Your task to perform on an android device: open a new tab in the chrome app Image 0: 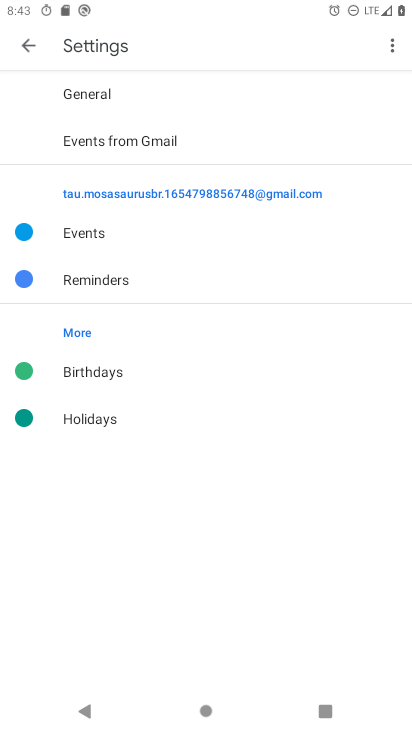
Step 0: press home button
Your task to perform on an android device: open a new tab in the chrome app Image 1: 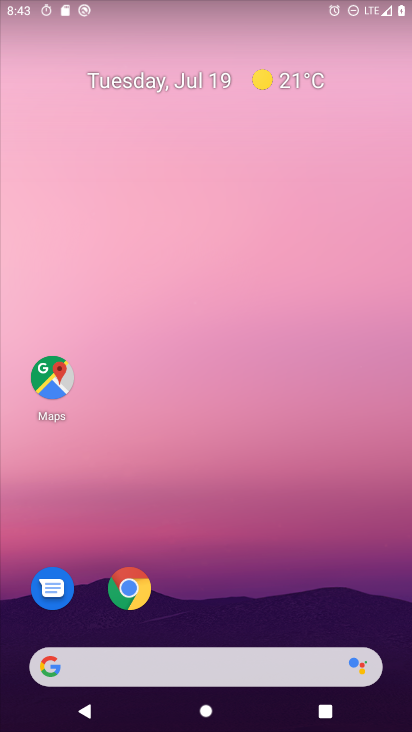
Step 1: drag from (260, 585) to (253, 196)
Your task to perform on an android device: open a new tab in the chrome app Image 2: 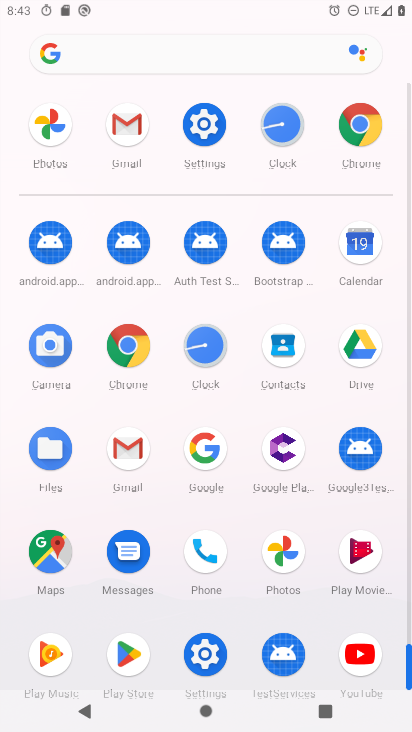
Step 2: click (130, 347)
Your task to perform on an android device: open a new tab in the chrome app Image 3: 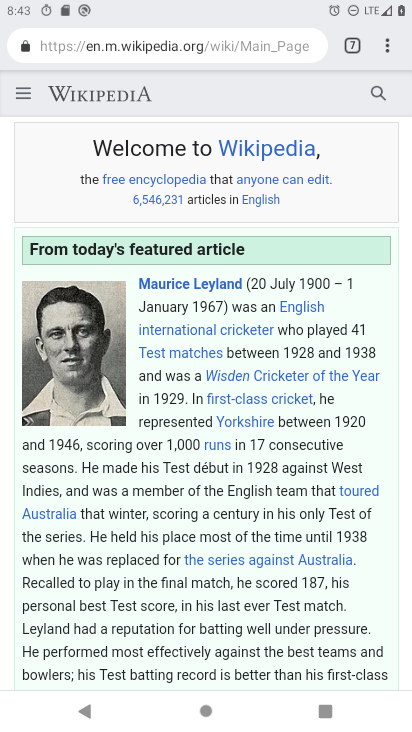
Step 3: click (350, 48)
Your task to perform on an android device: open a new tab in the chrome app Image 4: 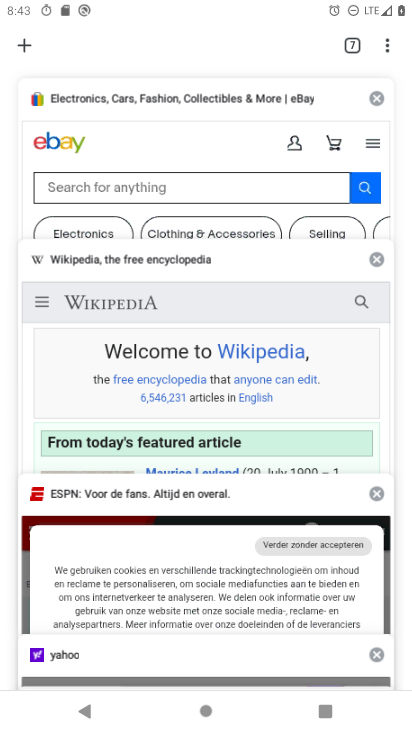
Step 4: click (21, 50)
Your task to perform on an android device: open a new tab in the chrome app Image 5: 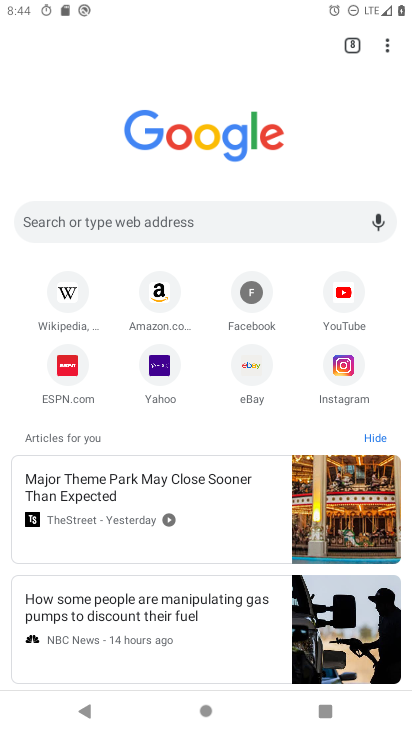
Step 5: task complete